Your task to perform on an android device: turn off sleep mode Image 0: 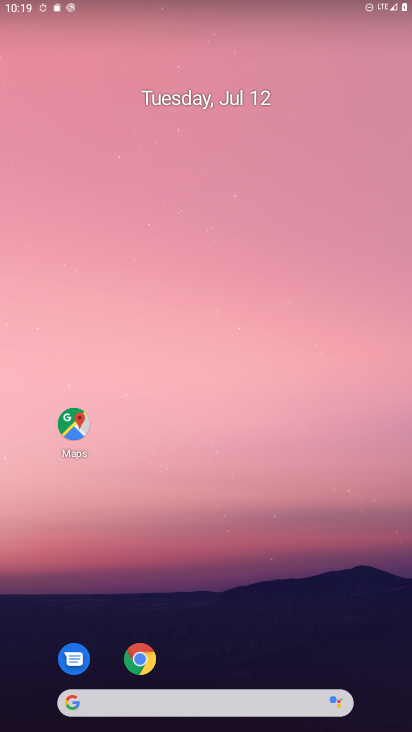
Step 0: drag from (370, 674) to (292, 4)
Your task to perform on an android device: turn off sleep mode Image 1: 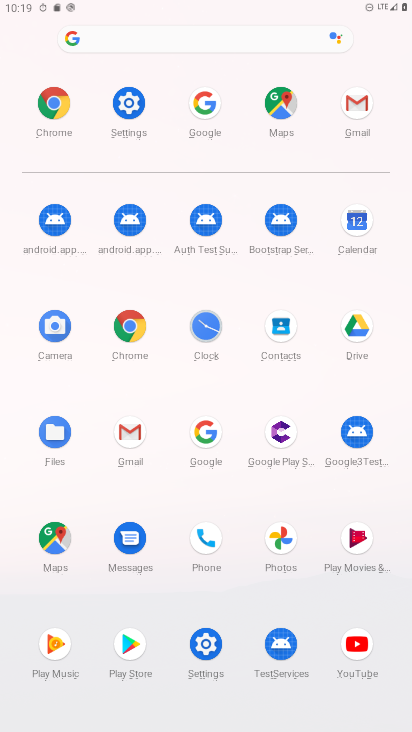
Step 1: click (218, 646)
Your task to perform on an android device: turn off sleep mode Image 2: 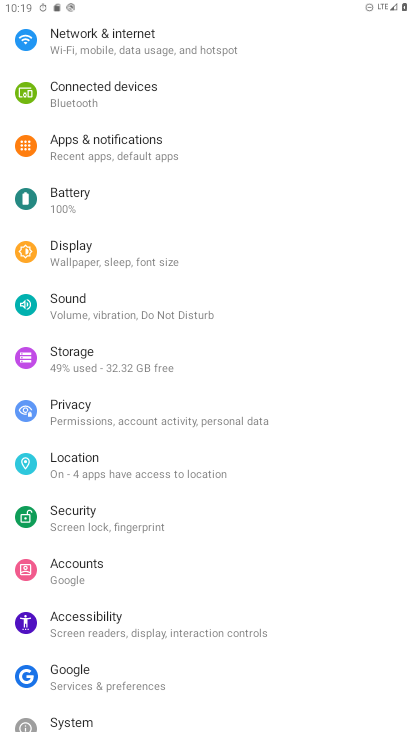
Step 2: task complete